Your task to perform on an android device: turn off wifi Image 0: 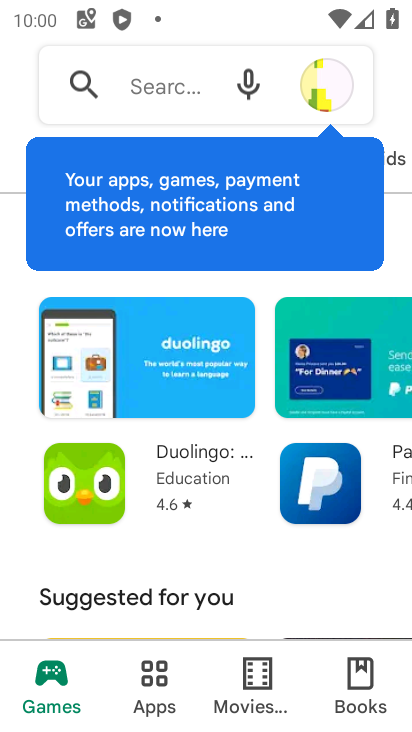
Step 0: press back button
Your task to perform on an android device: turn off wifi Image 1: 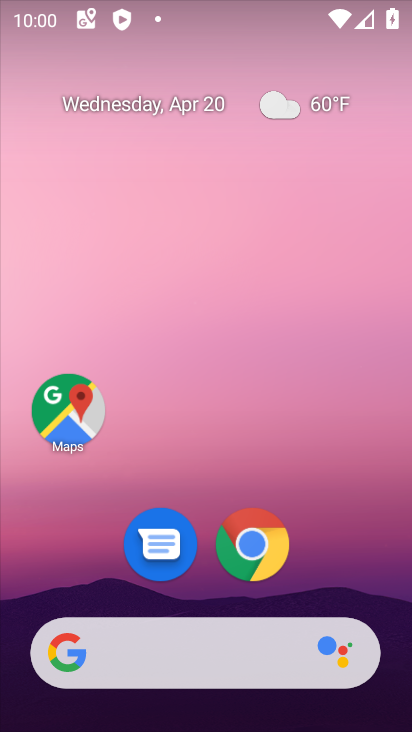
Step 1: drag from (343, 513) to (308, 133)
Your task to perform on an android device: turn off wifi Image 2: 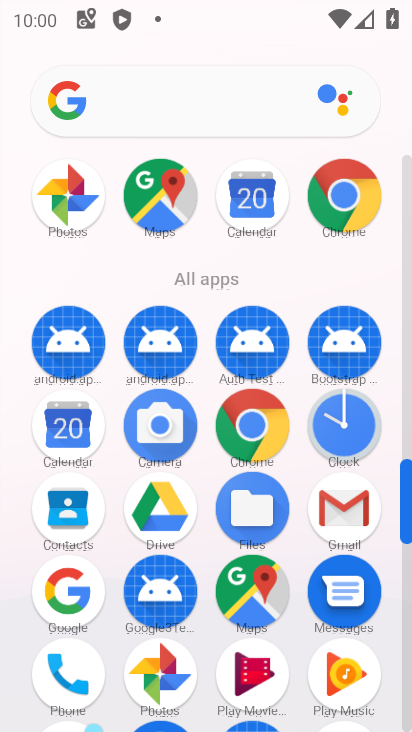
Step 2: click (404, 640)
Your task to perform on an android device: turn off wifi Image 3: 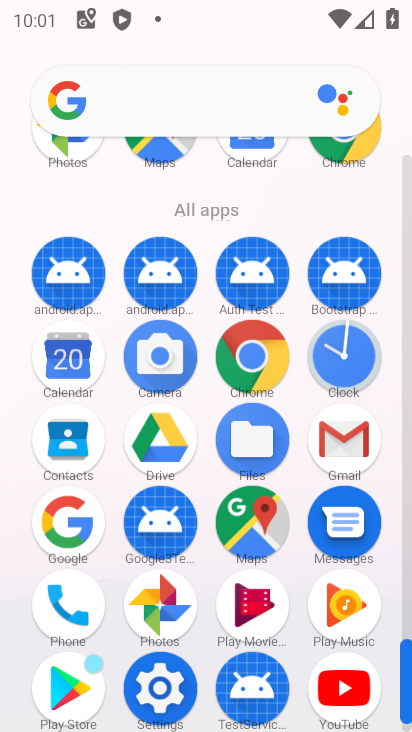
Step 3: click (181, 698)
Your task to perform on an android device: turn off wifi Image 4: 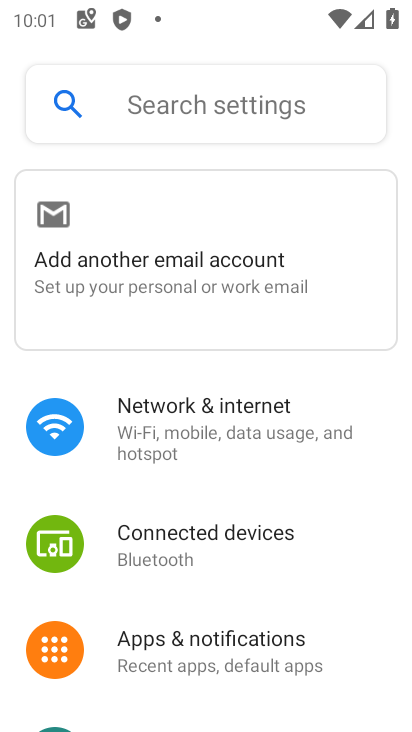
Step 4: click (256, 428)
Your task to perform on an android device: turn off wifi Image 5: 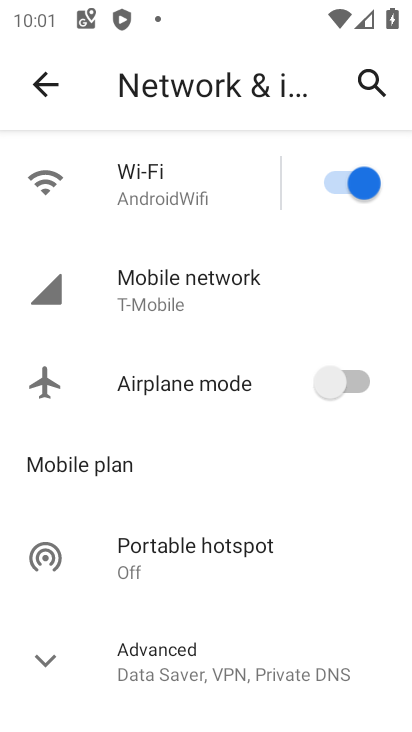
Step 5: click (344, 174)
Your task to perform on an android device: turn off wifi Image 6: 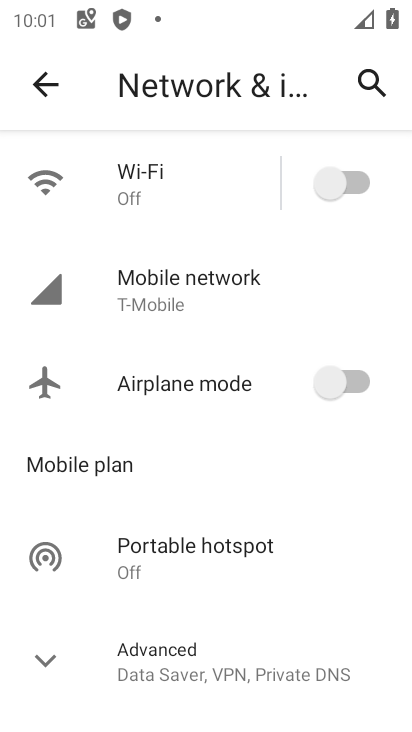
Step 6: task complete